Your task to perform on an android device: Go to accessibility settings Image 0: 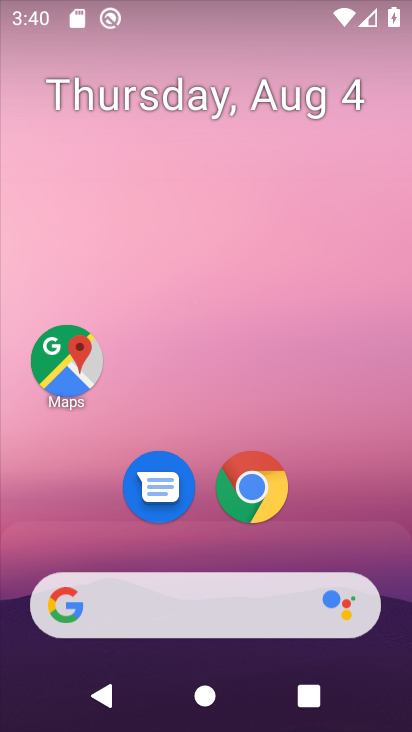
Step 0: drag from (70, 530) to (214, 74)
Your task to perform on an android device: Go to accessibility settings Image 1: 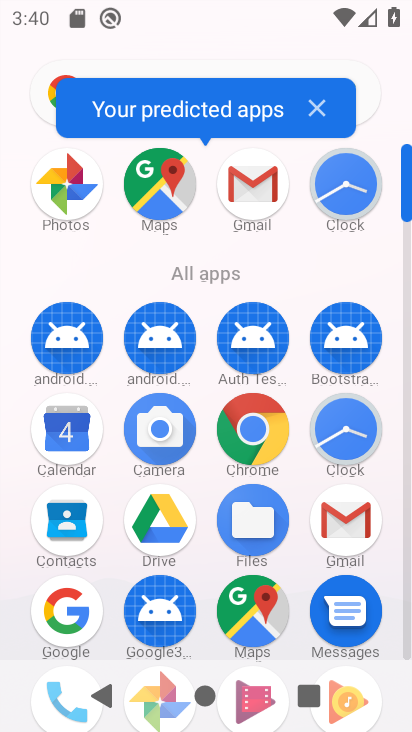
Step 1: drag from (232, 580) to (335, 11)
Your task to perform on an android device: Go to accessibility settings Image 2: 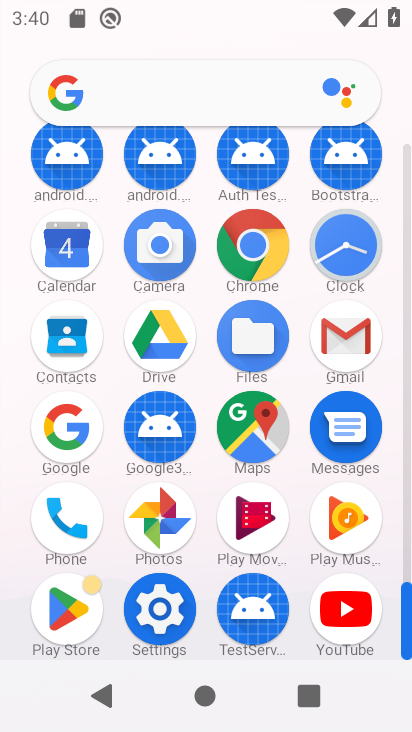
Step 2: click (161, 614)
Your task to perform on an android device: Go to accessibility settings Image 3: 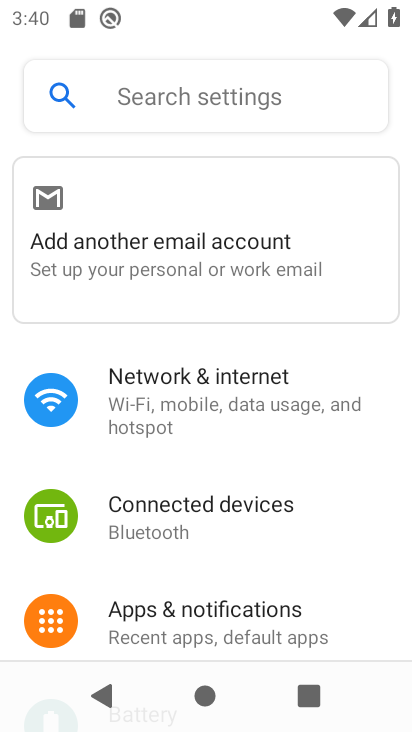
Step 3: drag from (169, 596) to (308, 37)
Your task to perform on an android device: Go to accessibility settings Image 4: 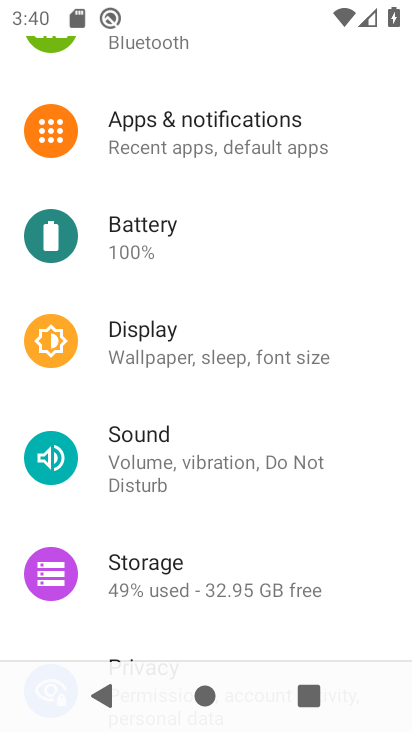
Step 4: drag from (205, 560) to (339, 38)
Your task to perform on an android device: Go to accessibility settings Image 5: 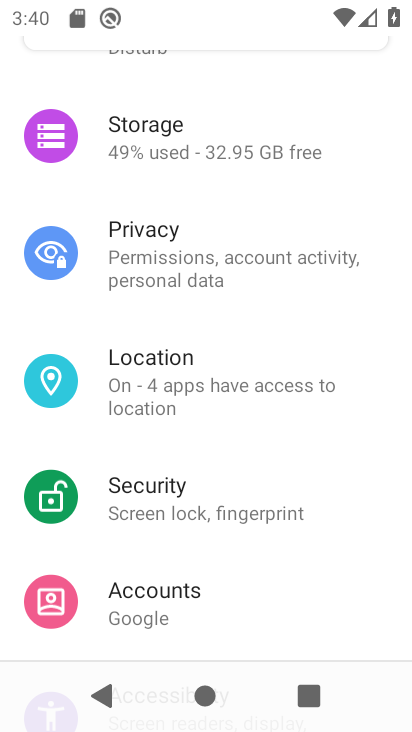
Step 5: drag from (247, 147) to (335, 50)
Your task to perform on an android device: Go to accessibility settings Image 6: 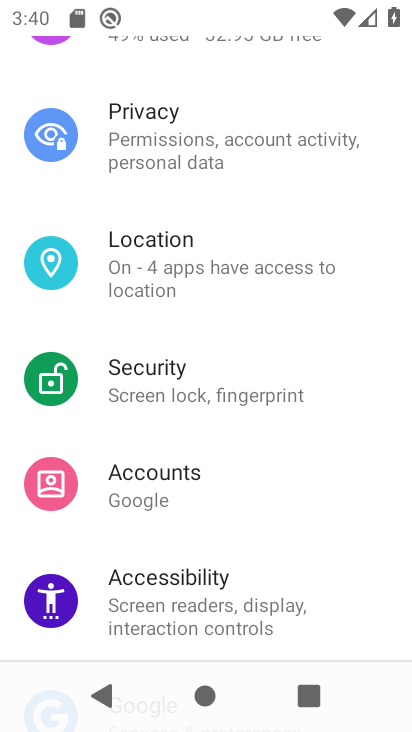
Step 6: click (222, 598)
Your task to perform on an android device: Go to accessibility settings Image 7: 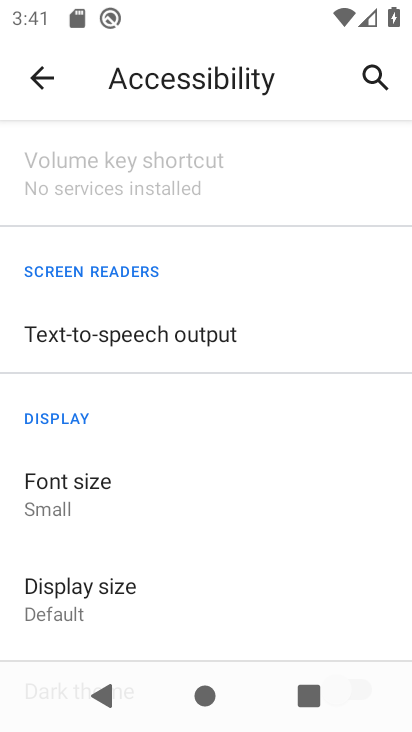
Step 7: task complete